Your task to perform on an android device: open chrome and create a bookmark for the current page Image 0: 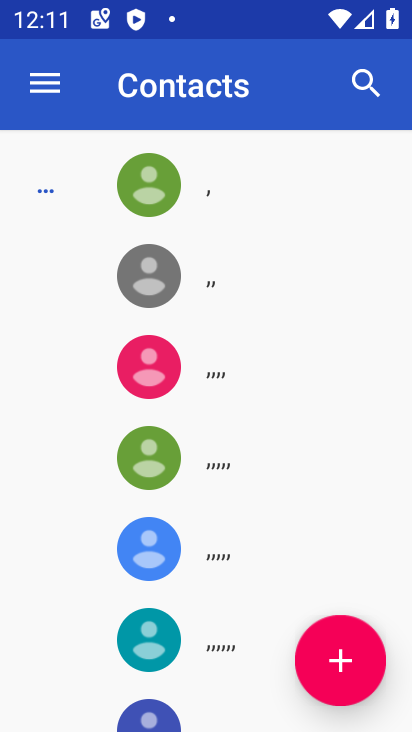
Step 0: press back button
Your task to perform on an android device: open chrome and create a bookmark for the current page Image 1: 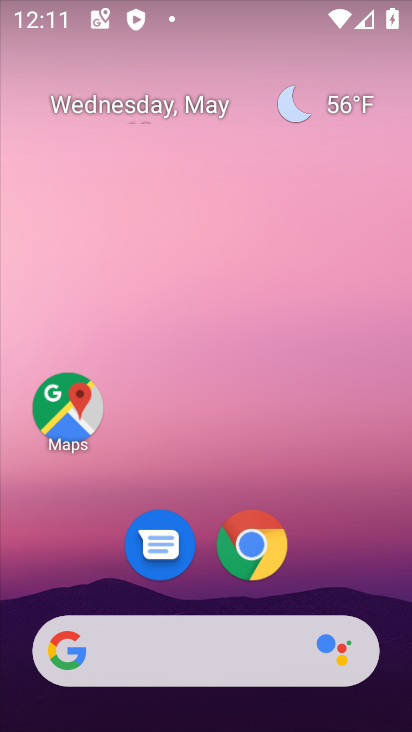
Step 1: click (250, 539)
Your task to perform on an android device: open chrome and create a bookmark for the current page Image 2: 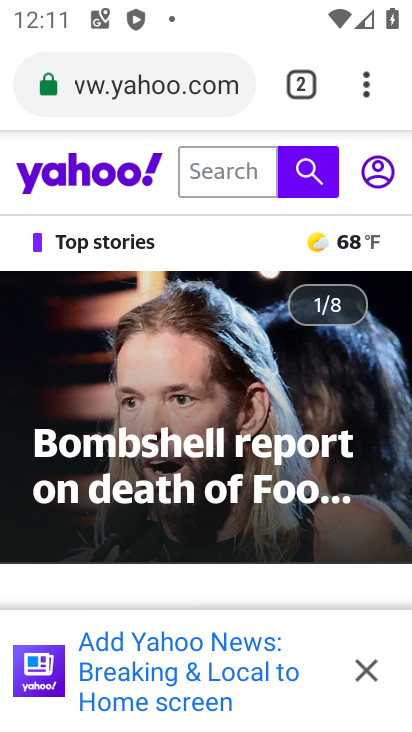
Step 2: click (366, 85)
Your task to perform on an android device: open chrome and create a bookmark for the current page Image 3: 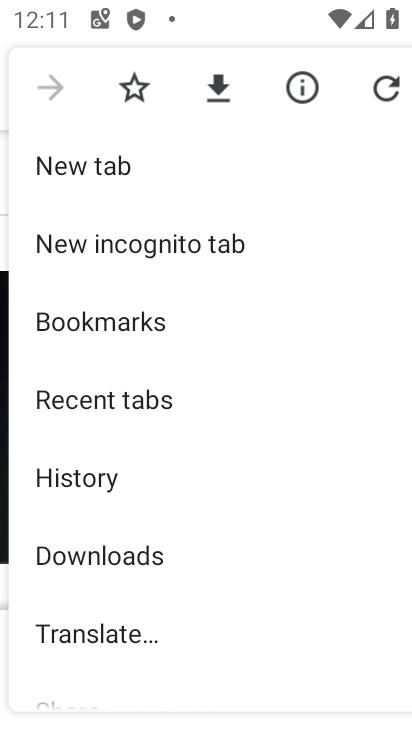
Step 3: click (138, 87)
Your task to perform on an android device: open chrome and create a bookmark for the current page Image 4: 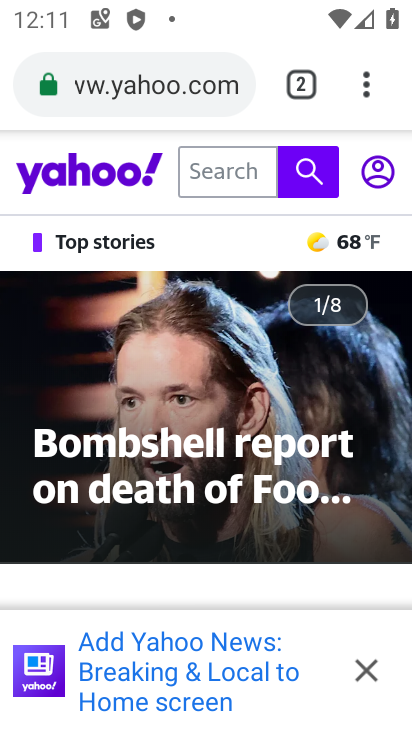
Step 4: task complete